Your task to perform on an android device: What's the weather today? Image 0: 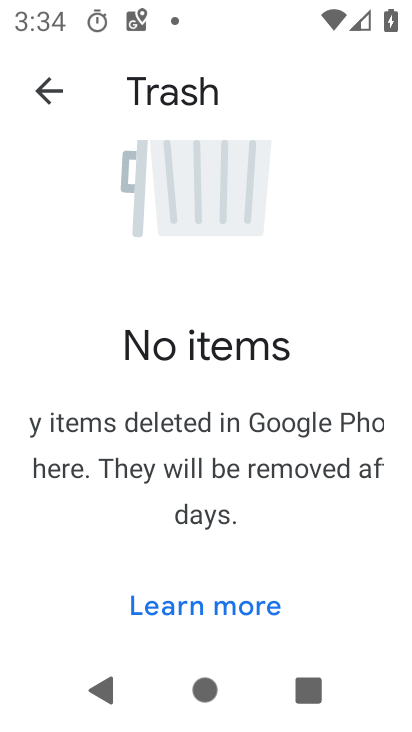
Step 0: press home button
Your task to perform on an android device: What's the weather today? Image 1: 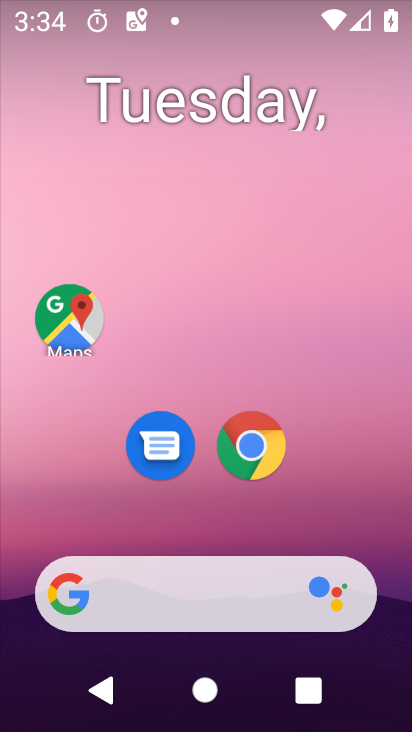
Step 1: drag from (208, 539) to (198, 12)
Your task to perform on an android device: What's the weather today? Image 2: 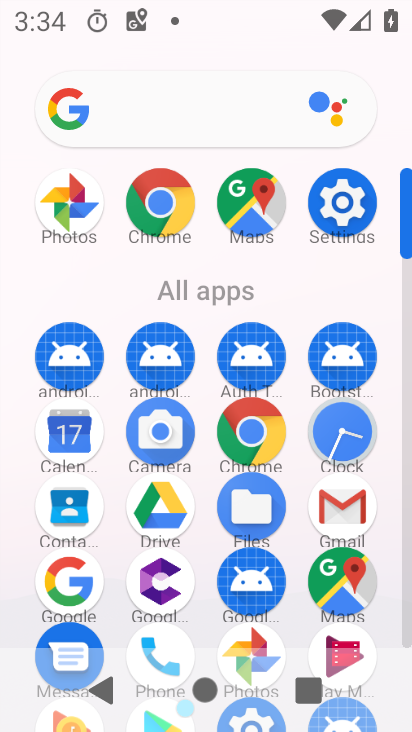
Step 2: click (59, 585)
Your task to perform on an android device: What's the weather today? Image 3: 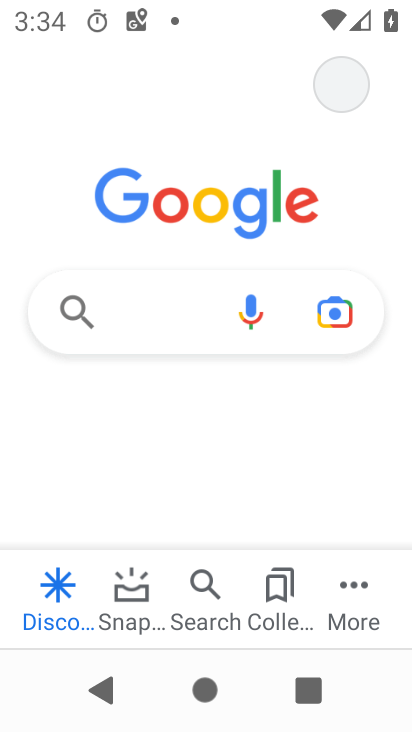
Step 3: click (196, 322)
Your task to perform on an android device: What's the weather today? Image 4: 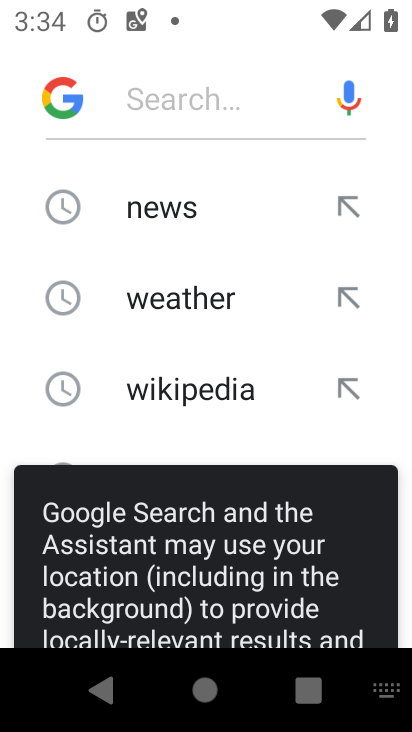
Step 4: click (151, 311)
Your task to perform on an android device: What's the weather today? Image 5: 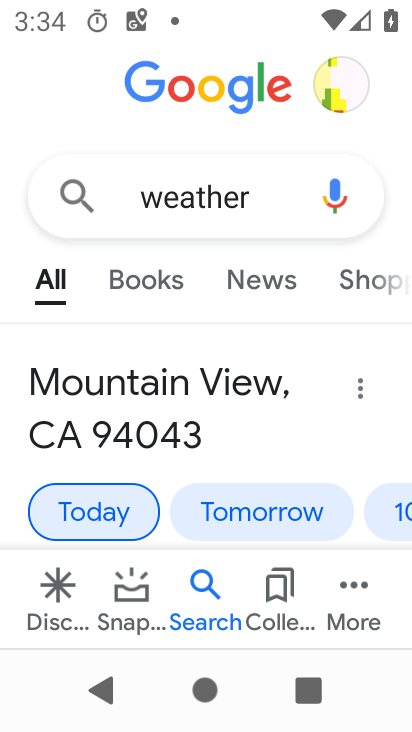
Step 5: task complete